Your task to perform on an android device: turn off airplane mode Image 0: 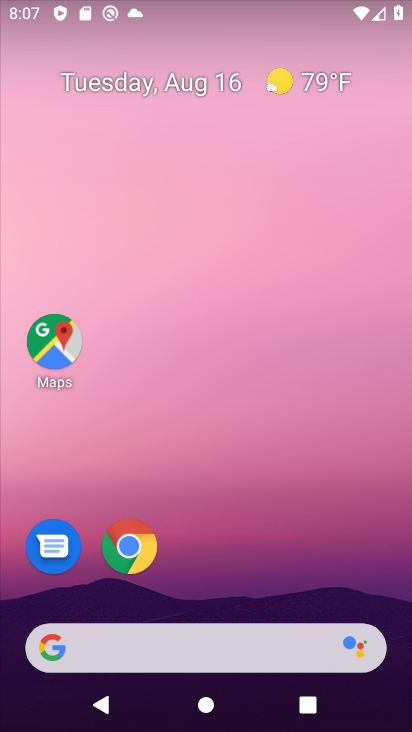
Step 0: click (197, 18)
Your task to perform on an android device: turn off airplane mode Image 1: 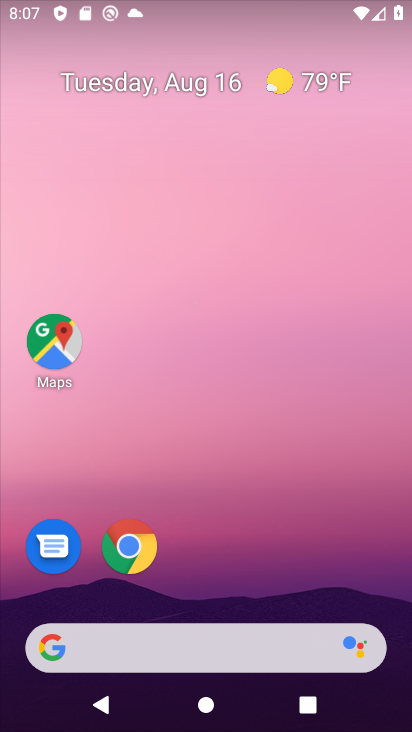
Step 1: drag from (194, 543) to (232, 81)
Your task to perform on an android device: turn off airplane mode Image 2: 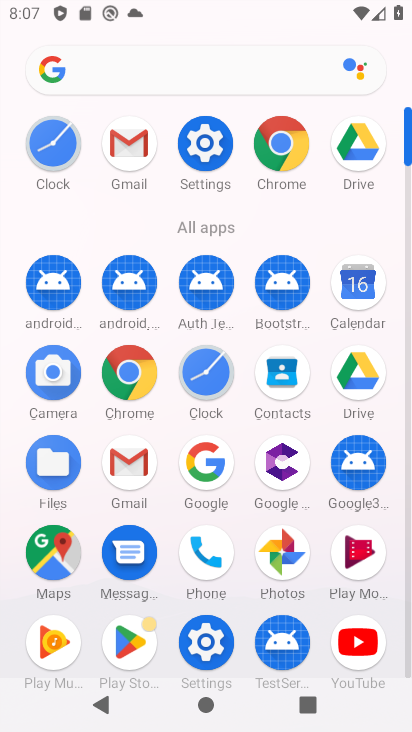
Step 2: click (200, 144)
Your task to perform on an android device: turn off airplane mode Image 3: 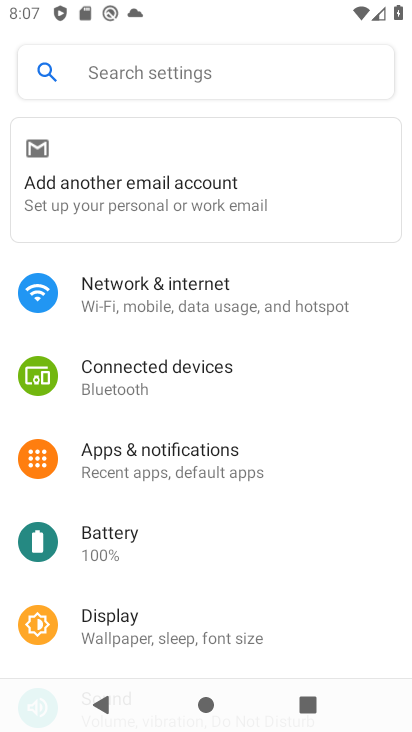
Step 3: click (114, 291)
Your task to perform on an android device: turn off airplane mode Image 4: 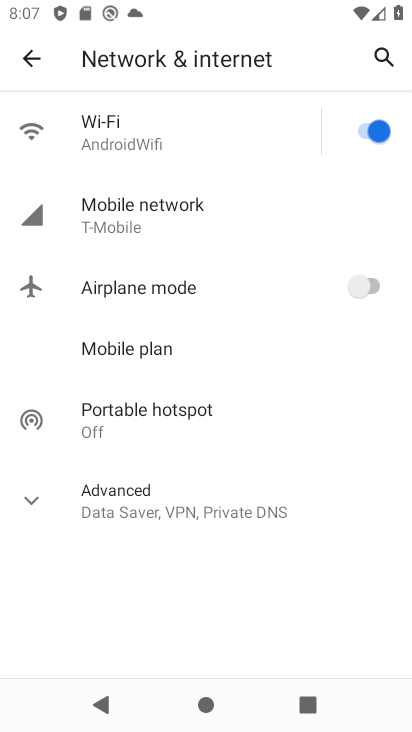
Step 4: task complete